Your task to perform on an android device: Open notification settings Image 0: 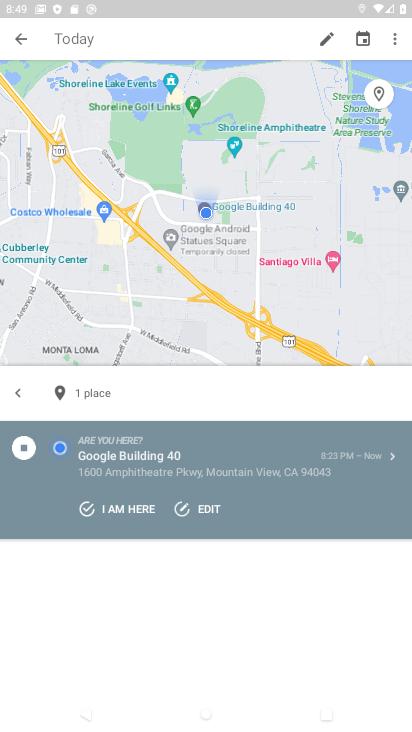
Step 0: press back button
Your task to perform on an android device: Open notification settings Image 1: 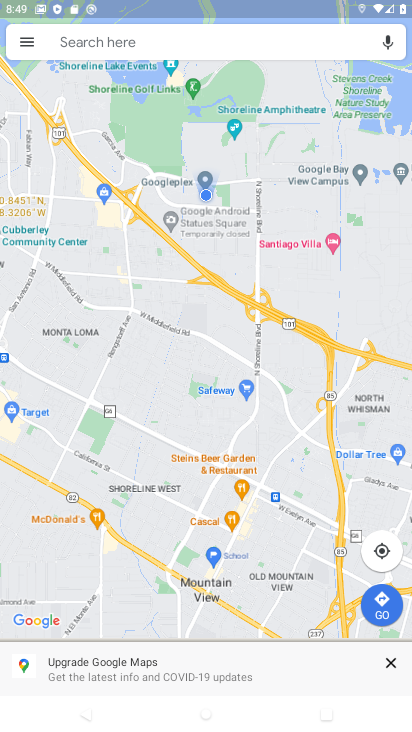
Step 1: press back button
Your task to perform on an android device: Open notification settings Image 2: 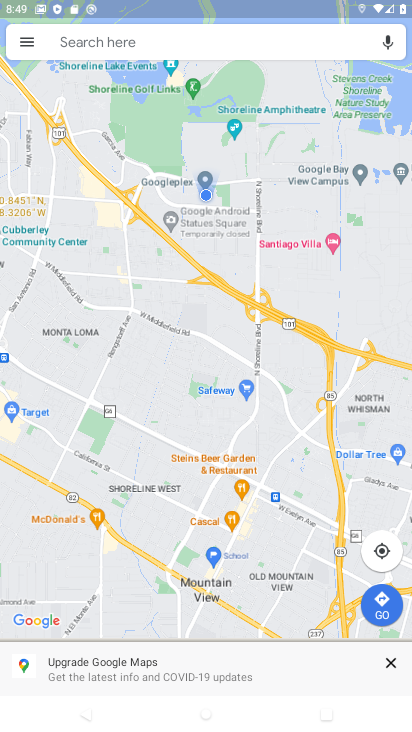
Step 2: press back button
Your task to perform on an android device: Open notification settings Image 3: 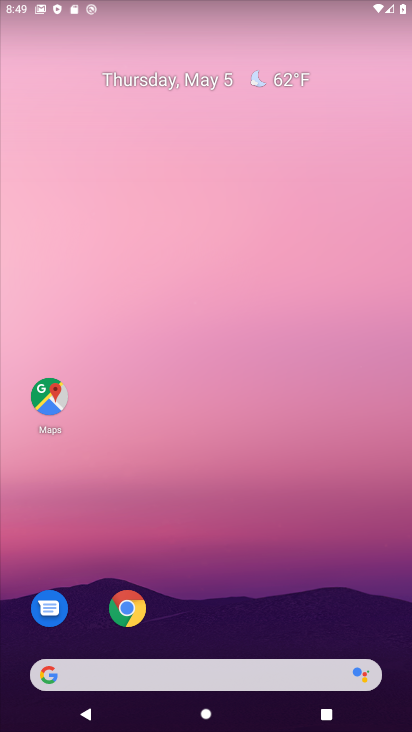
Step 3: drag from (292, 571) to (233, 3)
Your task to perform on an android device: Open notification settings Image 4: 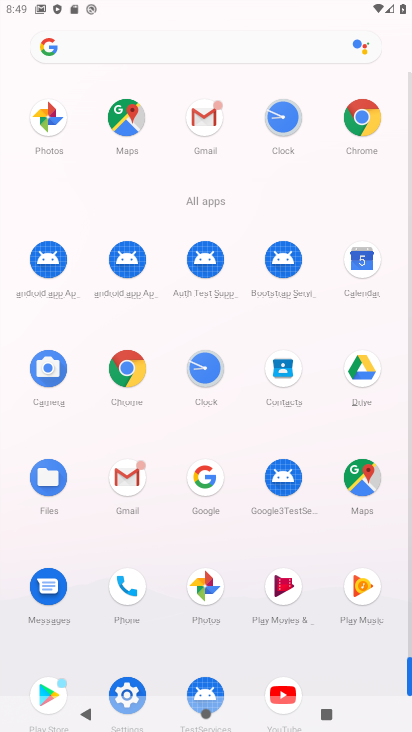
Step 4: drag from (8, 616) to (7, 410)
Your task to perform on an android device: Open notification settings Image 5: 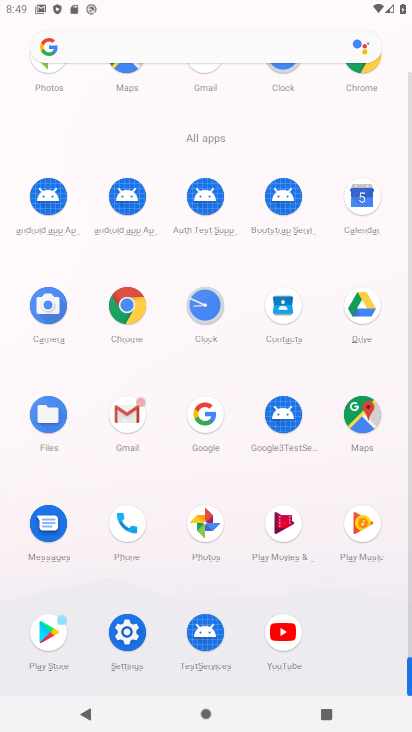
Step 5: click (128, 630)
Your task to perform on an android device: Open notification settings Image 6: 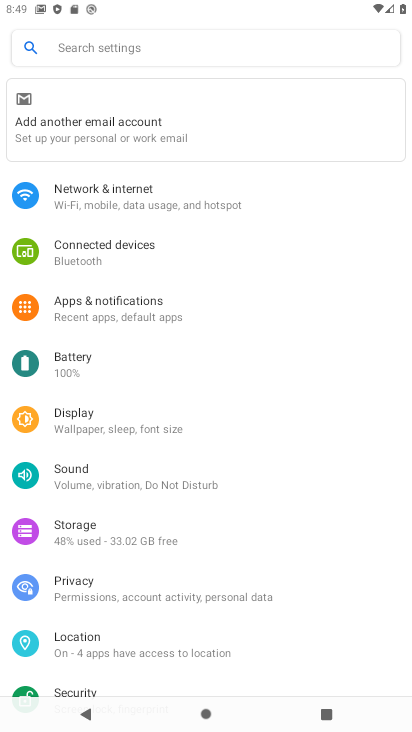
Step 6: click (123, 306)
Your task to perform on an android device: Open notification settings Image 7: 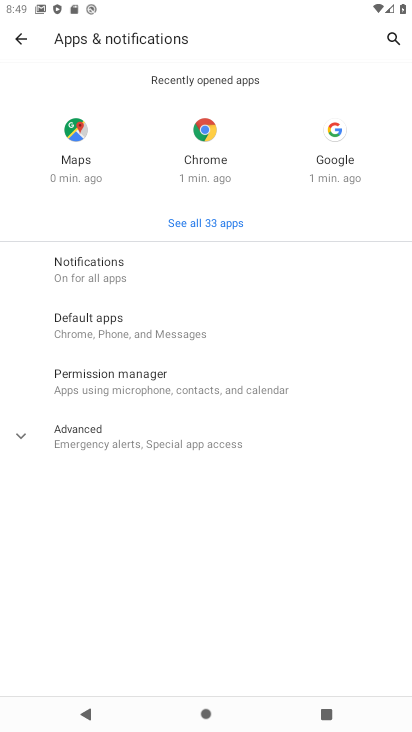
Step 7: click (140, 267)
Your task to perform on an android device: Open notification settings Image 8: 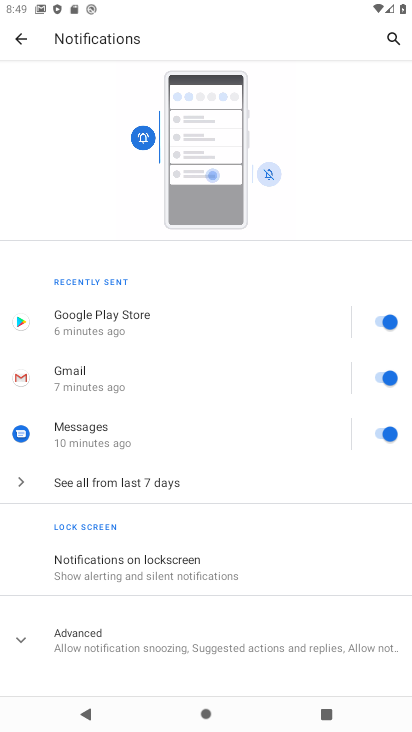
Step 8: click (26, 644)
Your task to perform on an android device: Open notification settings Image 9: 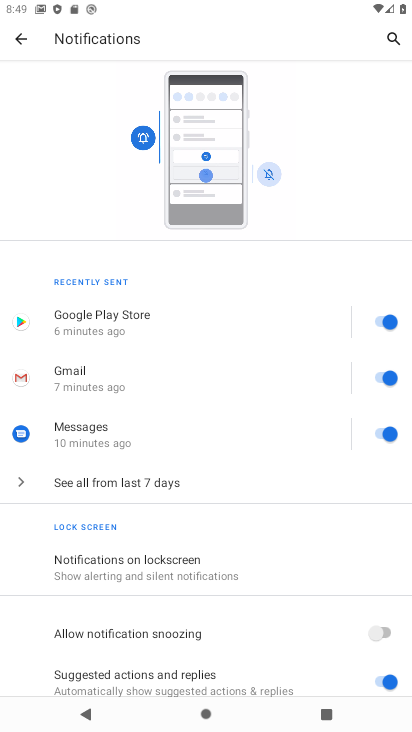
Step 9: task complete